Your task to perform on an android device: turn off airplane mode Image 0: 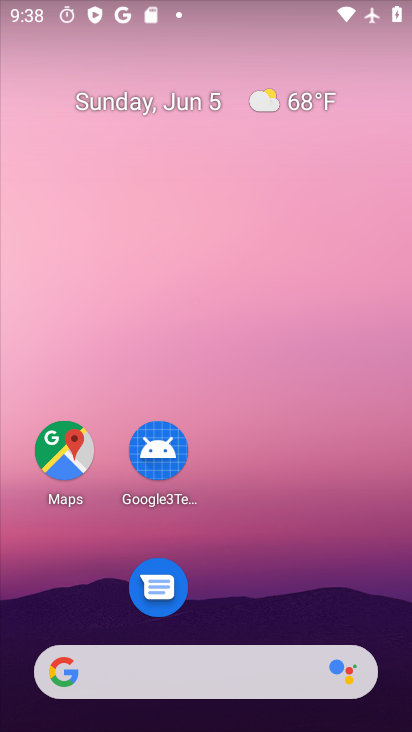
Step 0: drag from (277, 605) to (226, 41)
Your task to perform on an android device: turn off airplane mode Image 1: 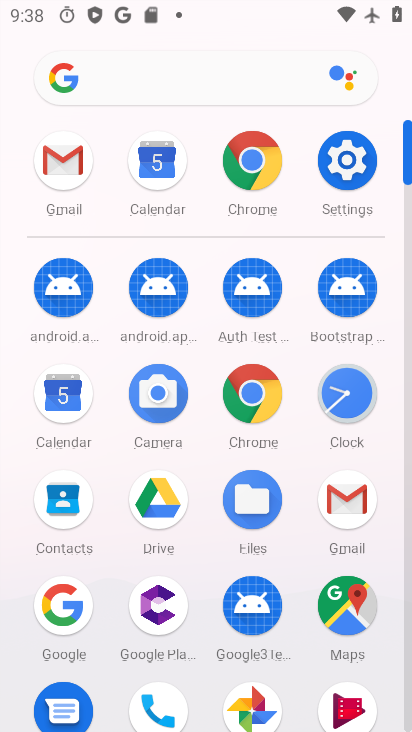
Step 1: click (331, 165)
Your task to perform on an android device: turn off airplane mode Image 2: 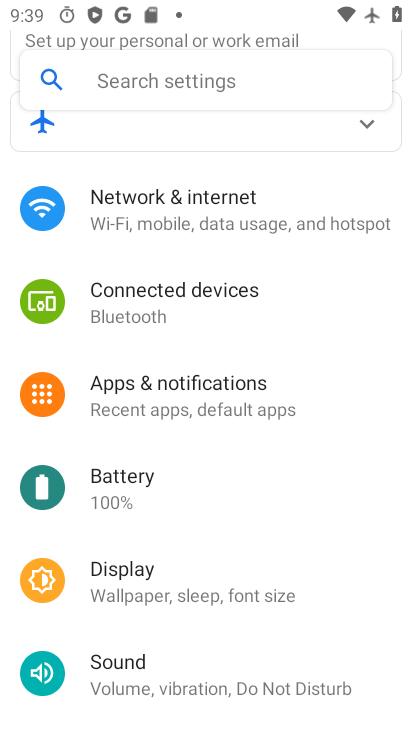
Step 2: click (215, 198)
Your task to perform on an android device: turn off airplane mode Image 3: 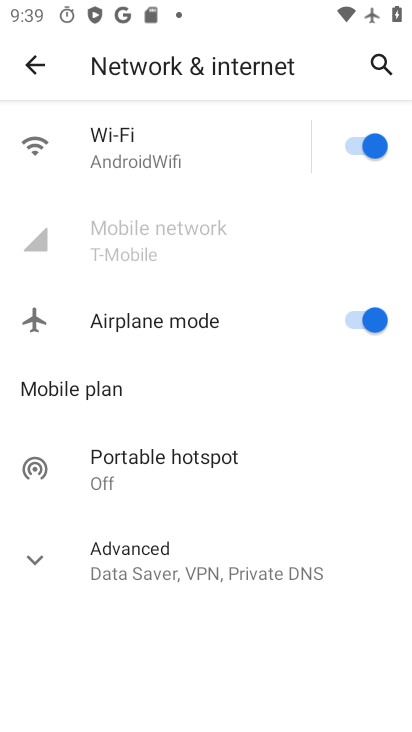
Step 3: click (357, 316)
Your task to perform on an android device: turn off airplane mode Image 4: 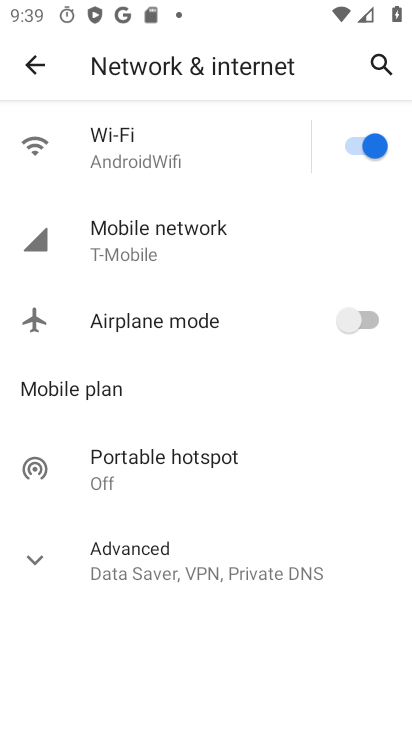
Step 4: task complete